Your task to perform on an android device: turn on translation in the chrome app Image 0: 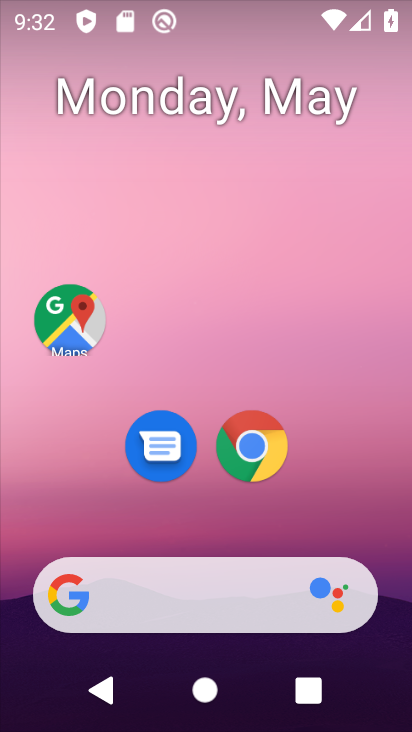
Step 0: click (262, 450)
Your task to perform on an android device: turn on translation in the chrome app Image 1: 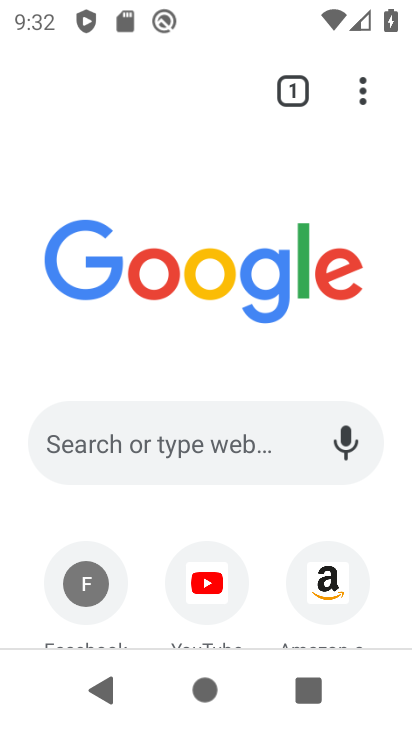
Step 1: drag from (361, 91) to (304, 502)
Your task to perform on an android device: turn on translation in the chrome app Image 2: 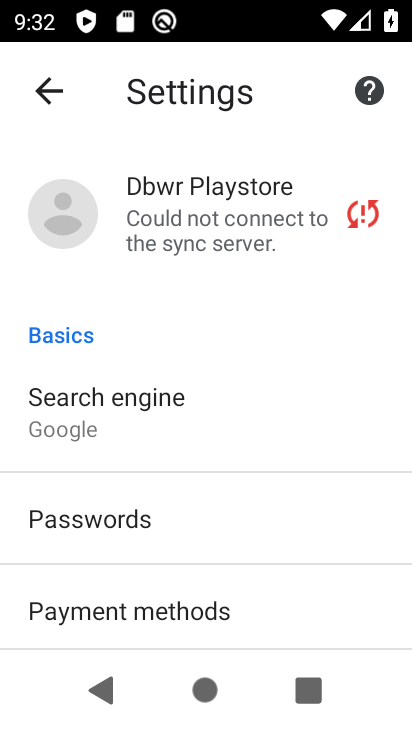
Step 2: drag from (228, 586) to (319, 191)
Your task to perform on an android device: turn on translation in the chrome app Image 3: 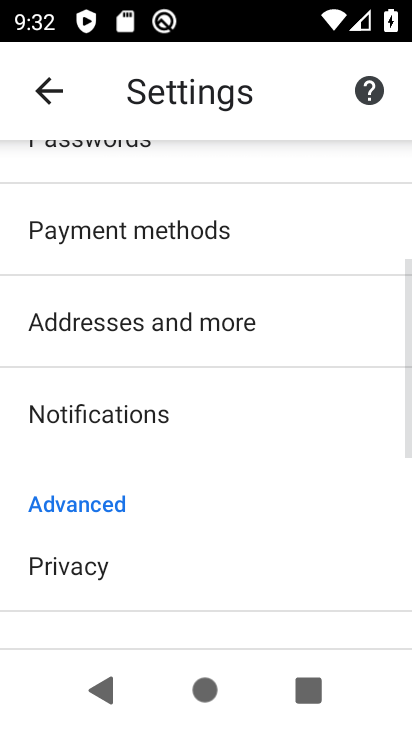
Step 3: drag from (258, 542) to (329, 258)
Your task to perform on an android device: turn on translation in the chrome app Image 4: 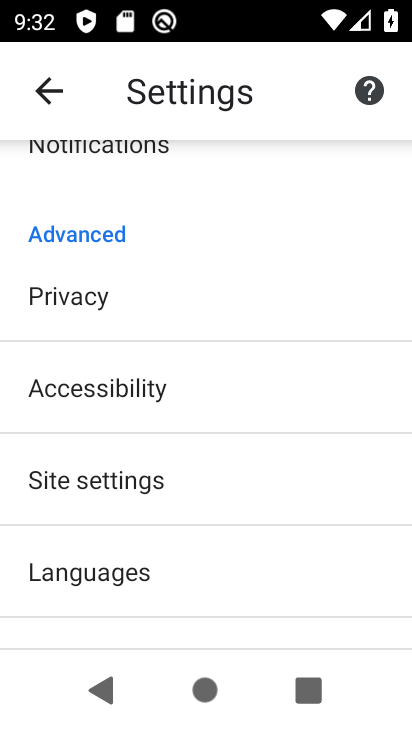
Step 4: click (228, 570)
Your task to perform on an android device: turn on translation in the chrome app Image 5: 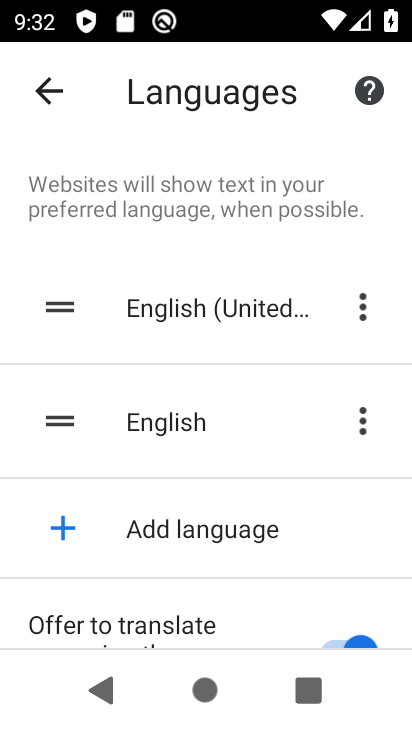
Step 5: task complete